Your task to perform on an android device: uninstall "Google Keep" Image 0: 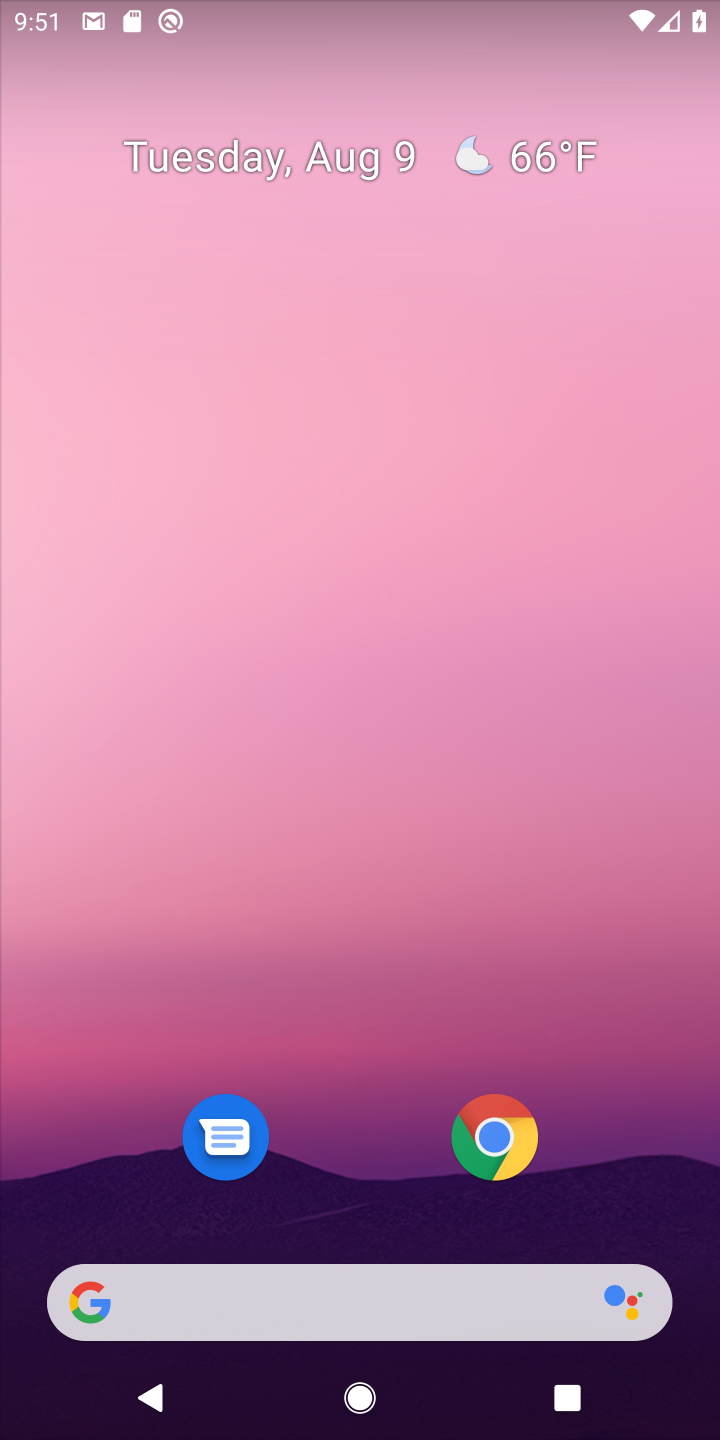
Step 0: drag from (438, 645) to (478, 292)
Your task to perform on an android device: uninstall "Google Keep" Image 1: 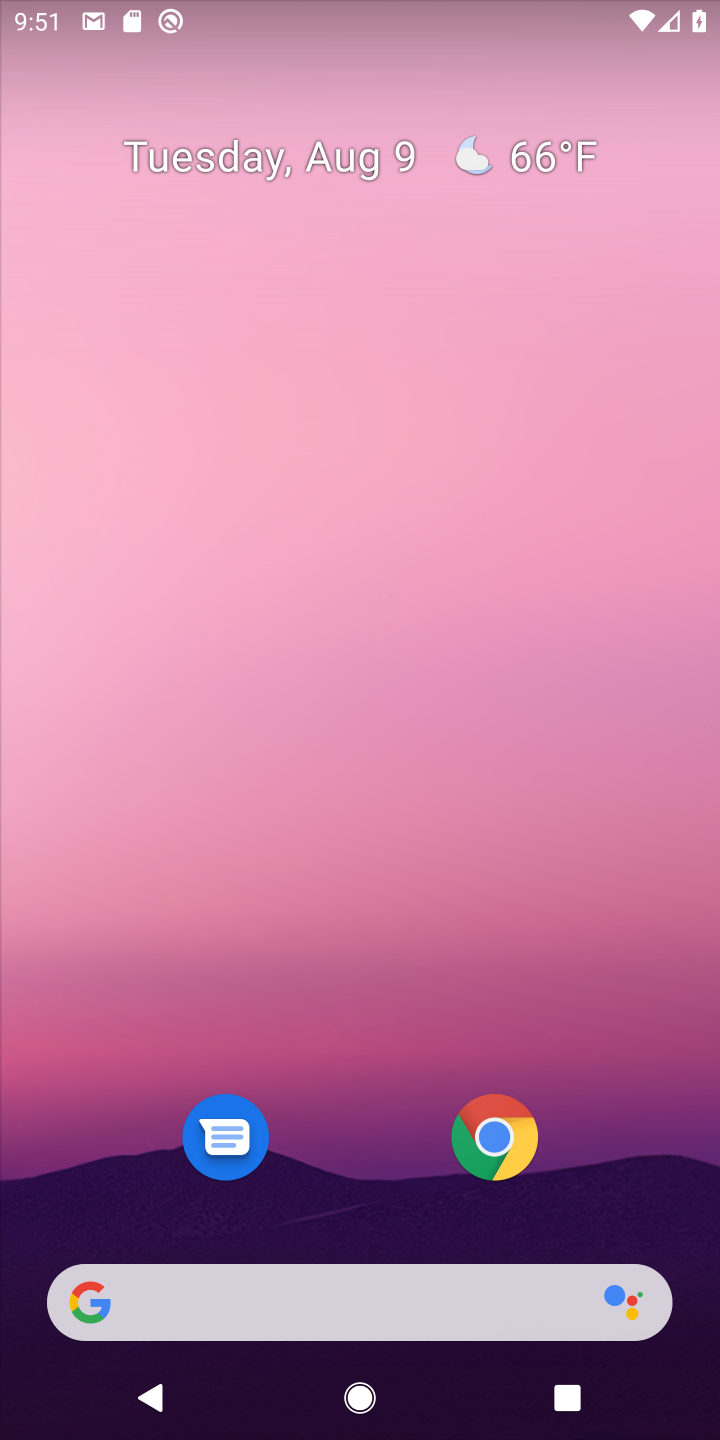
Step 1: drag from (378, 694) to (391, 343)
Your task to perform on an android device: uninstall "Google Keep" Image 2: 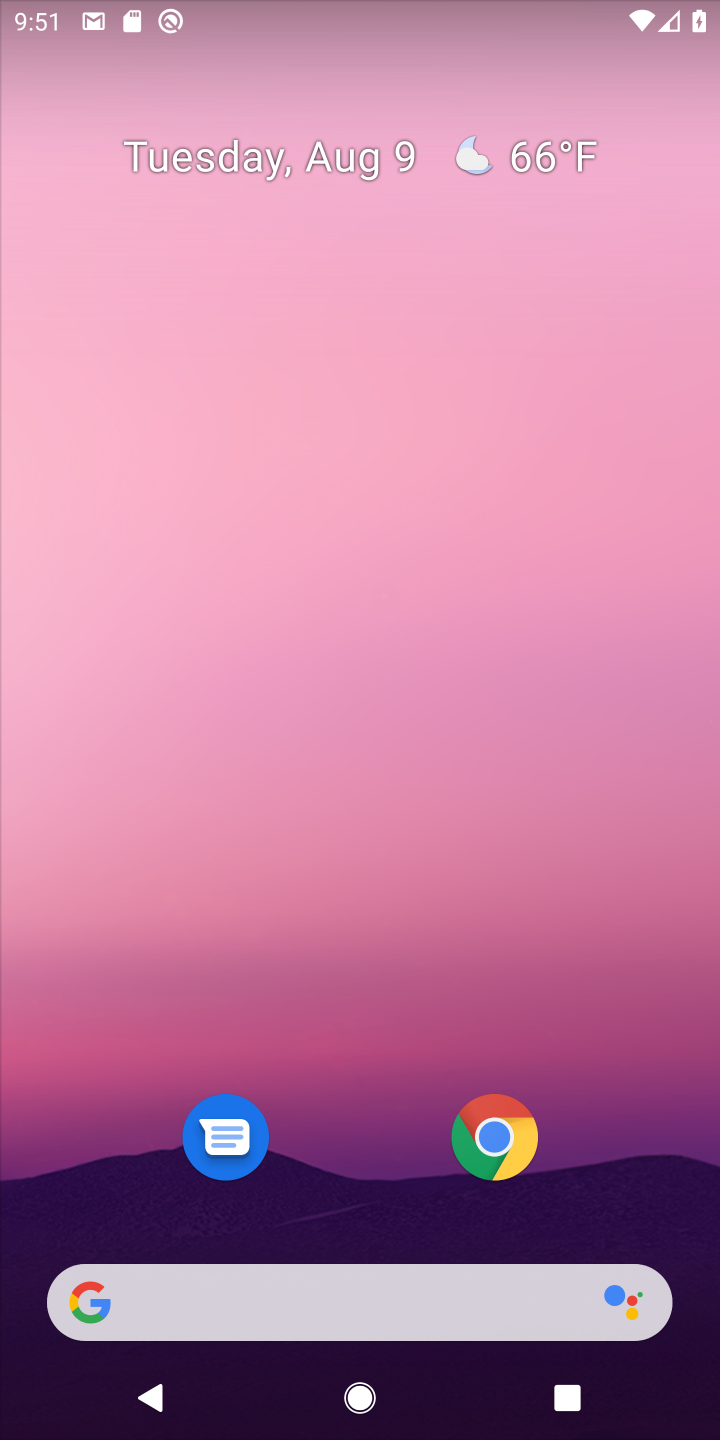
Step 2: drag from (347, 1037) to (437, 368)
Your task to perform on an android device: uninstall "Google Keep" Image 3: 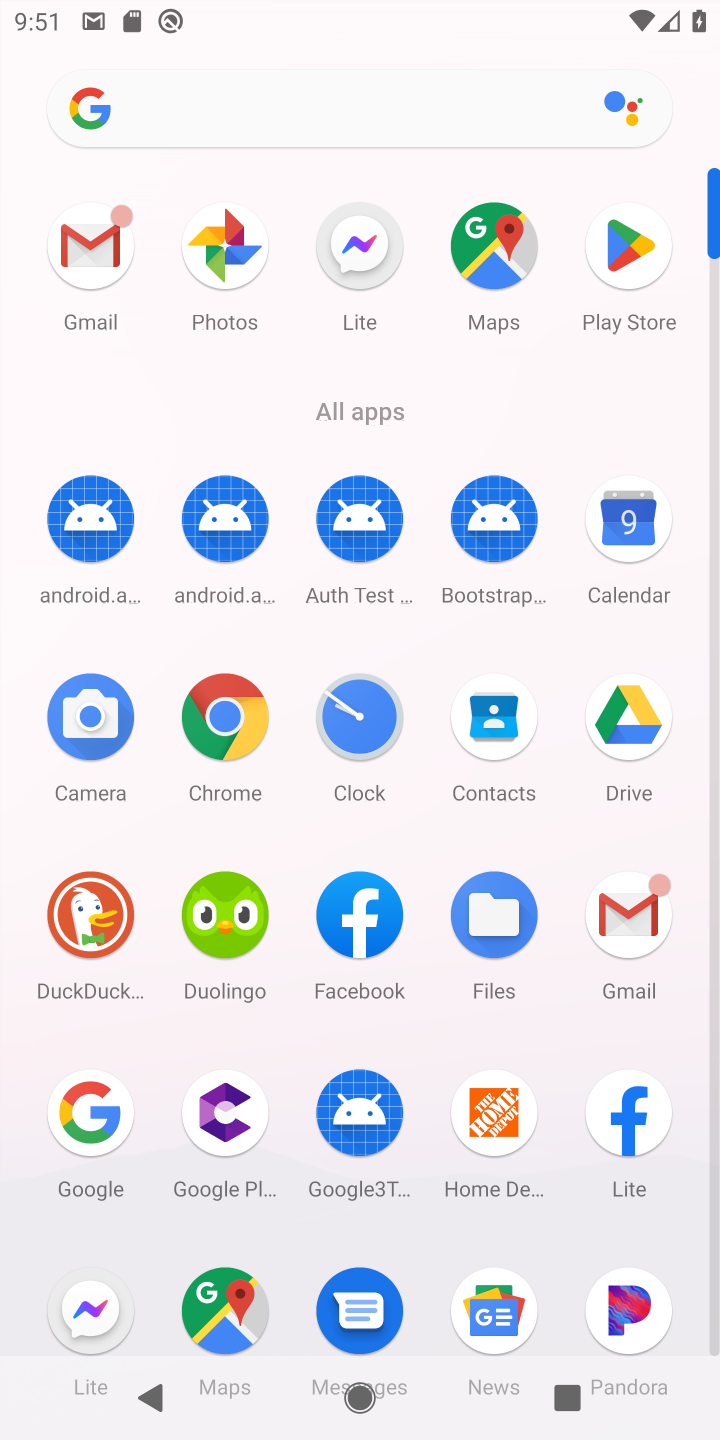
Step 3: click (610, 250)
Your task to perform on an android device: uninstall "Google Keep" Image 4: 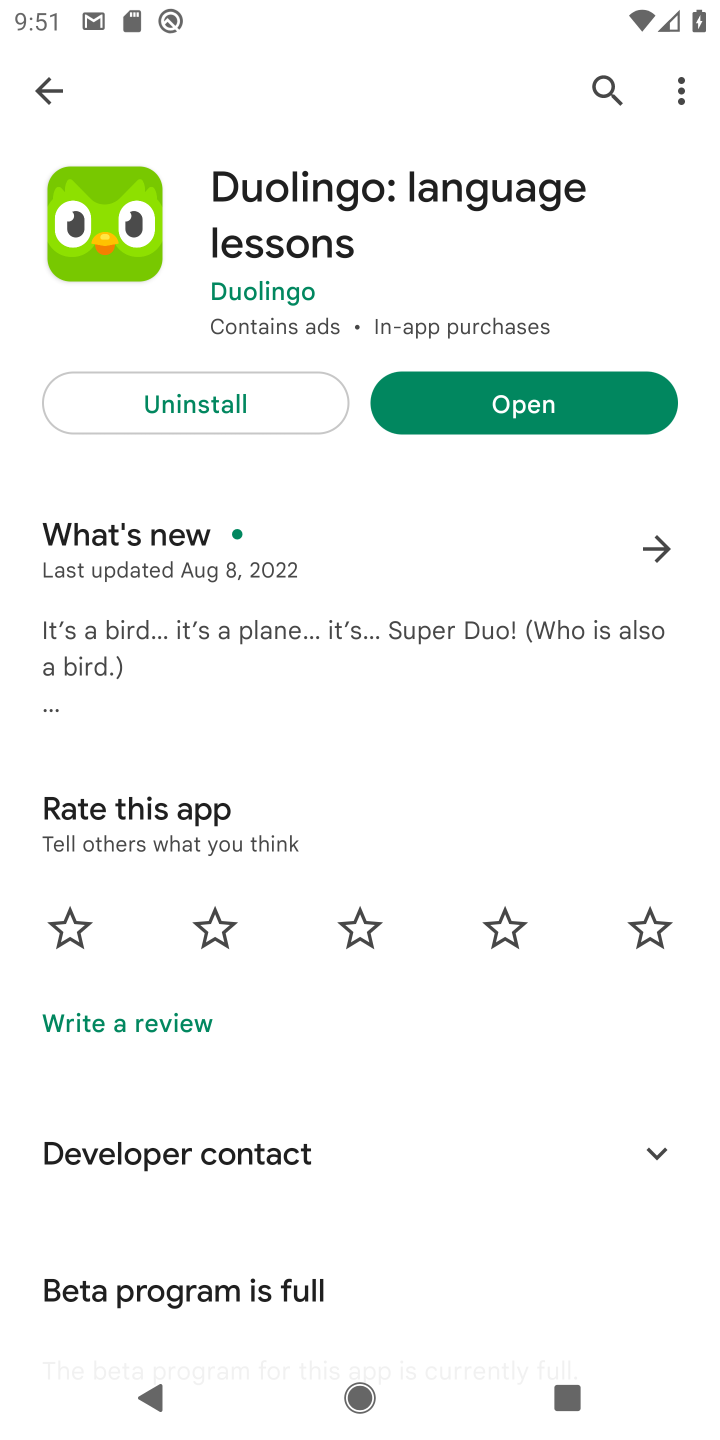
Step 4: click (589, 90)
Your task to perform on an android device: uninstall "Google Keep" Image 5: 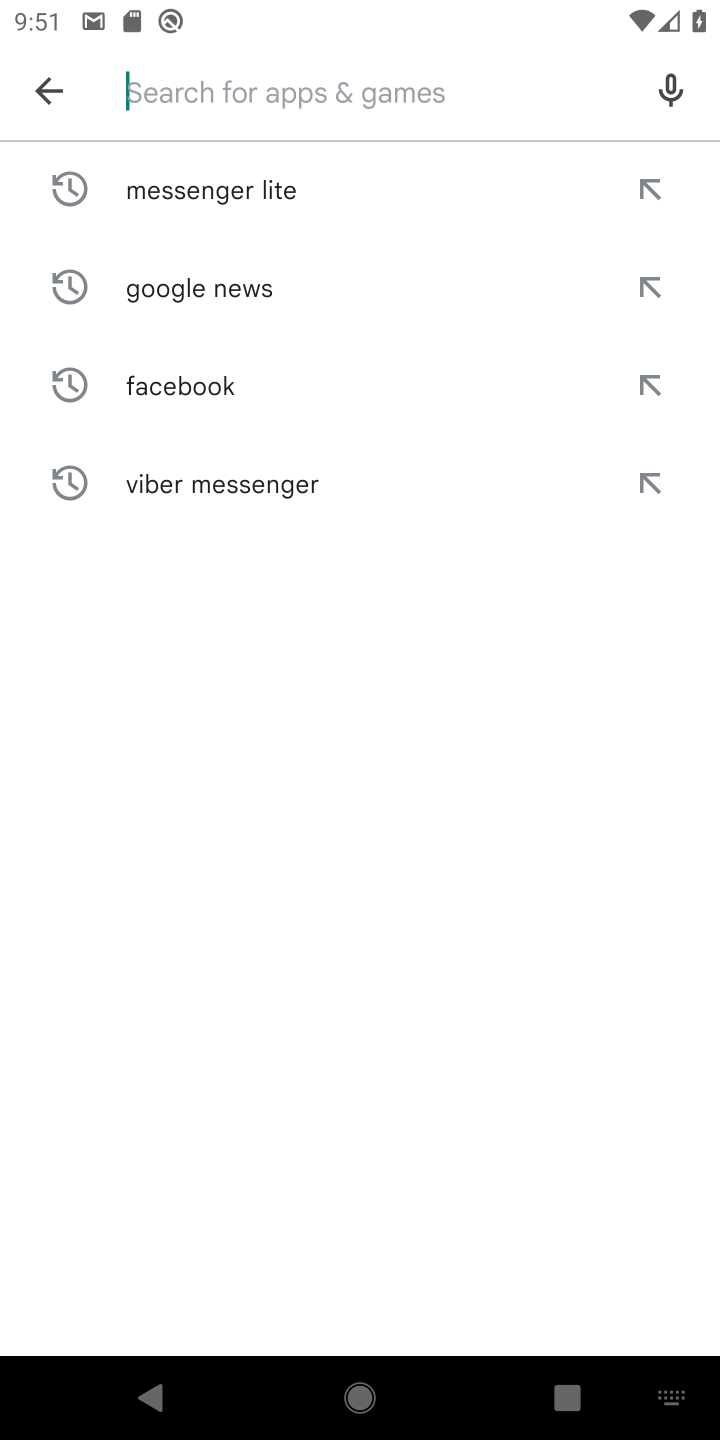
Step 5: type "Google Keep"
Your task to perform on an android device: uninstall "Google Keep" Image 6: 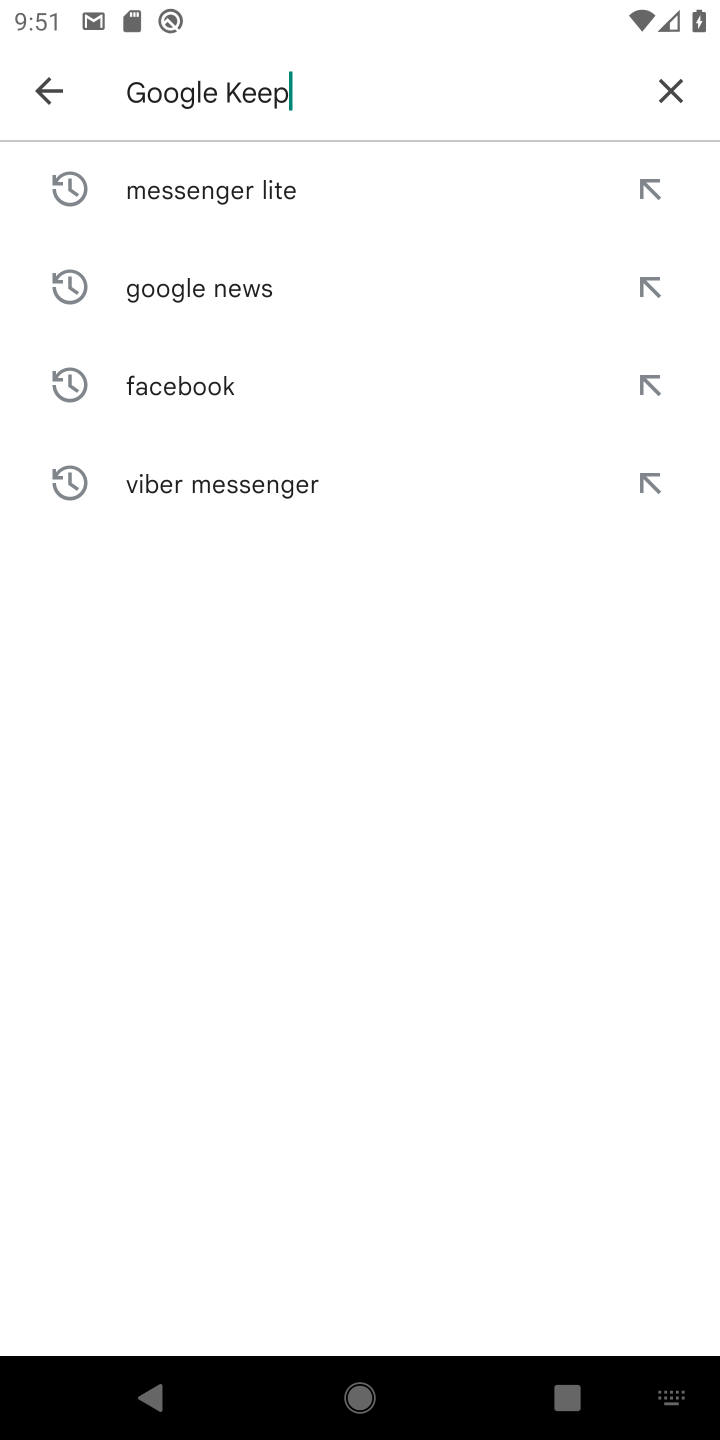
Step 6: type ""
Your task to perform on an android device: uninstall "Google Keep" Image 7: 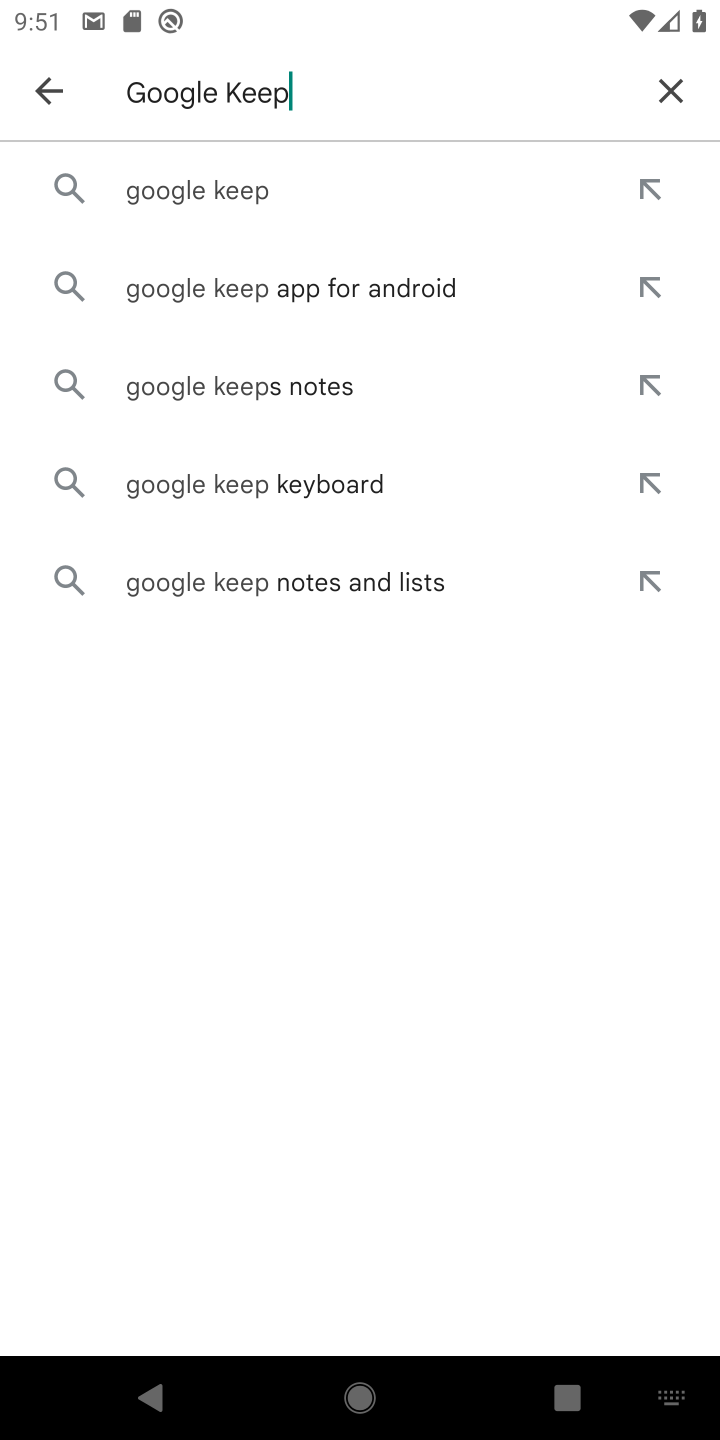
Step 7: click (188, 181)
Your task to perform on an android device: uninstall "Google Keep" Image 8: 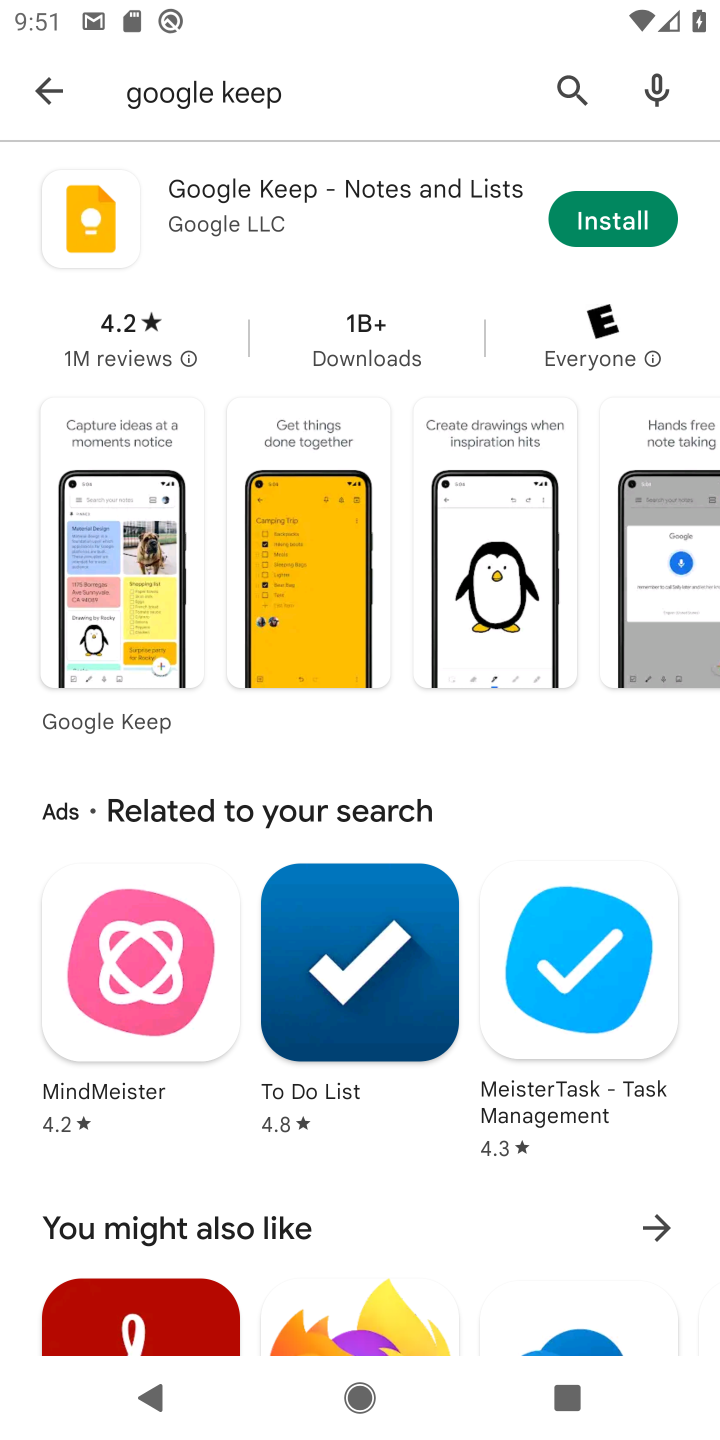
Step 8: task complete